Your task to perform on an android device: see sites visited before in the chrome app Image 0: 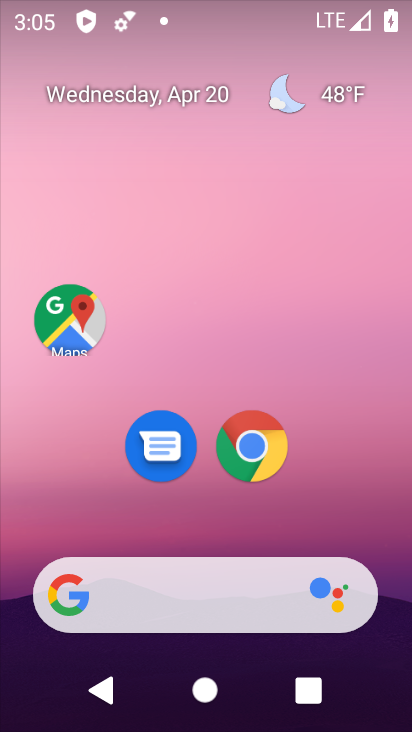
Step 0: click (250, 449)
Your task to perform on an android device: see sites visited before in the chrome app Image 1: 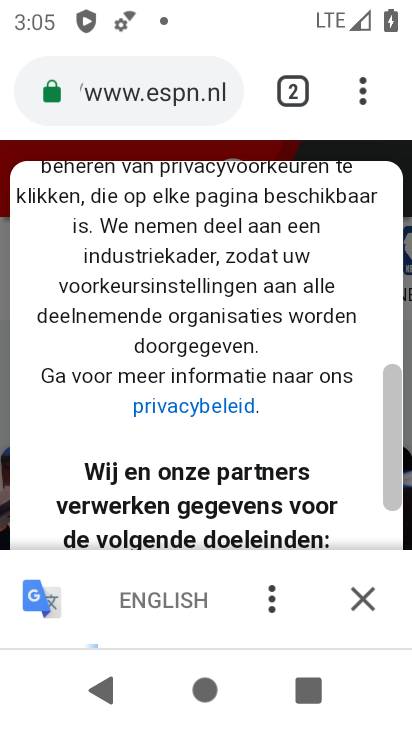
Step 1: click (366, 100)
Your task to perform on an android device: see sites visited before in the chrome app Image 2: 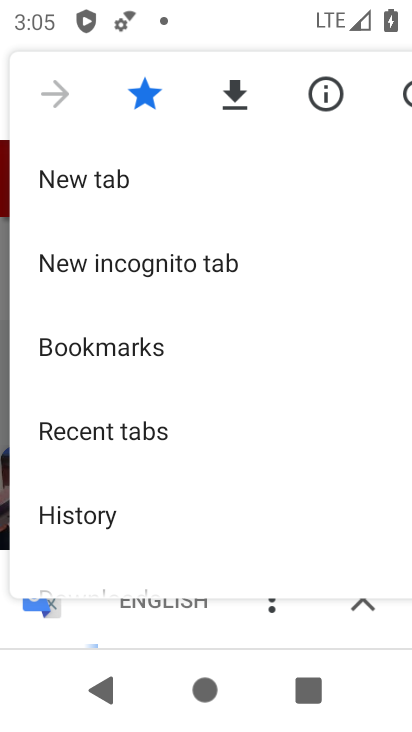
Step 2: click (103, 521)
Your task to perform on an android device: see sites visited before in the chrome app Image 3: 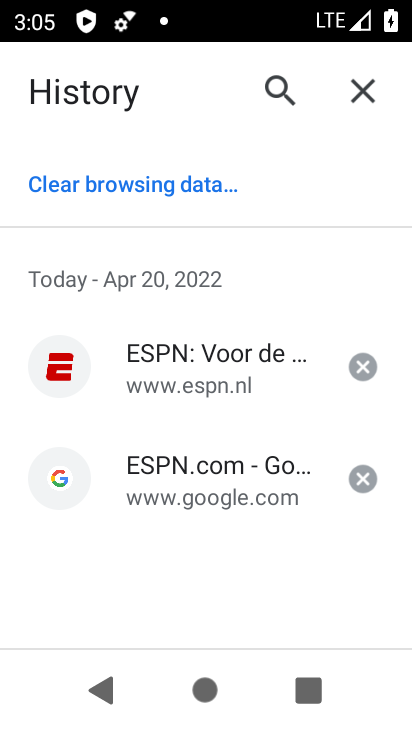
Step 3: task complete